Your task to perform on an android device: Open Yahoo.com Image 0: 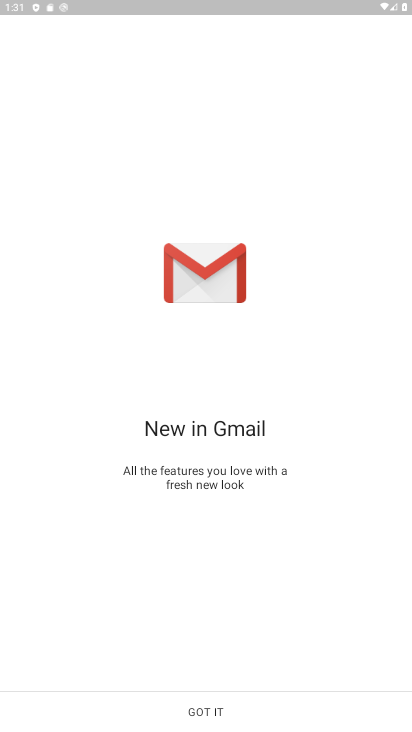
Step 0: press home button
Your task to perform on an android device: Open Yahoo.com Image 1: 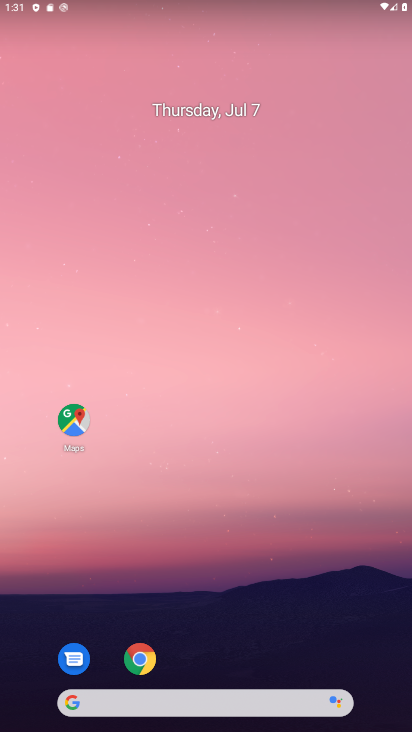
Step 1: click (139, 656)
Your task to perform on an android device: Open Yahoo.com Image 2: 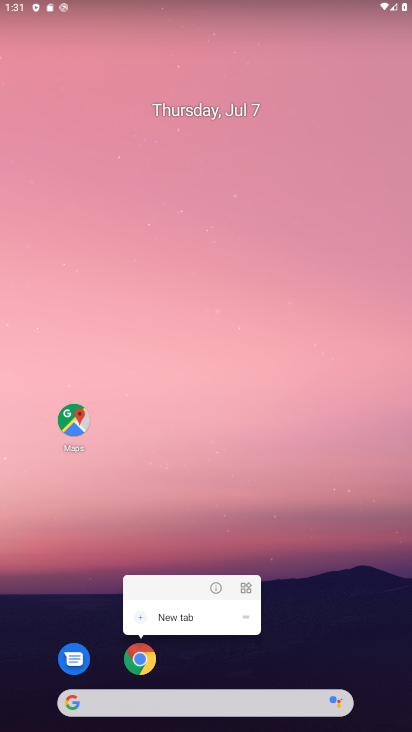
Step 2: click (139, 656)
Your task to perform on an android device: Open Yahoo.com Image 3: 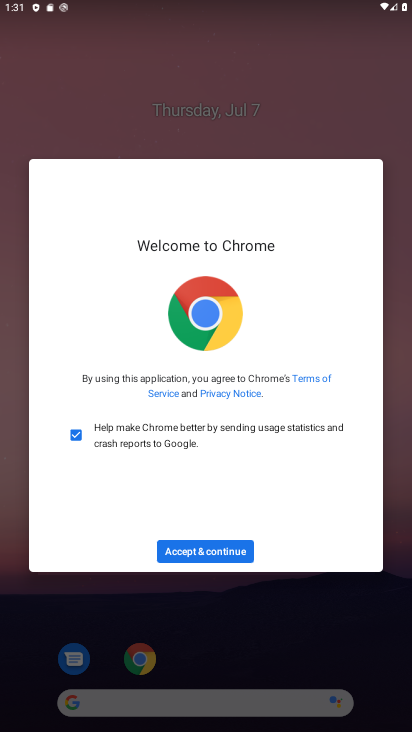
Step 3: click (202, 560)
Your task to perform on an android device: Open Yahoo.com Image 4: 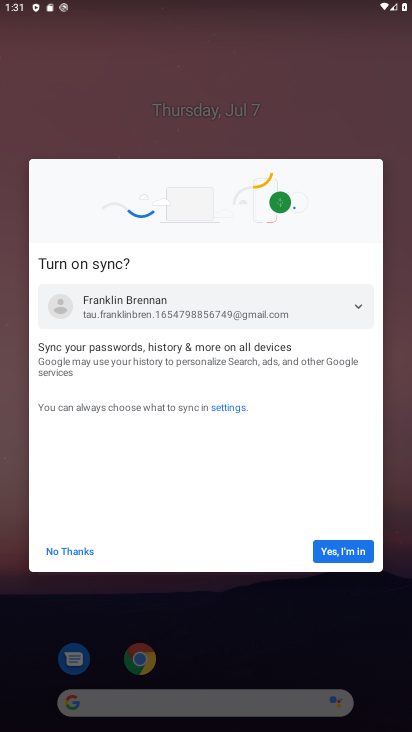
Step 4: click (339, 551)
Your task to perform on an android device: Open Yahoo.com Image 5: 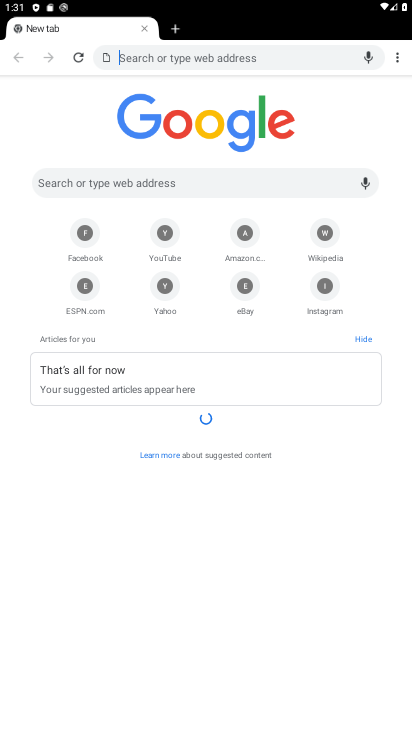
Step 5: click (163, 287)
Your task to perform on an android device: Open Yahoo.com Image 6: 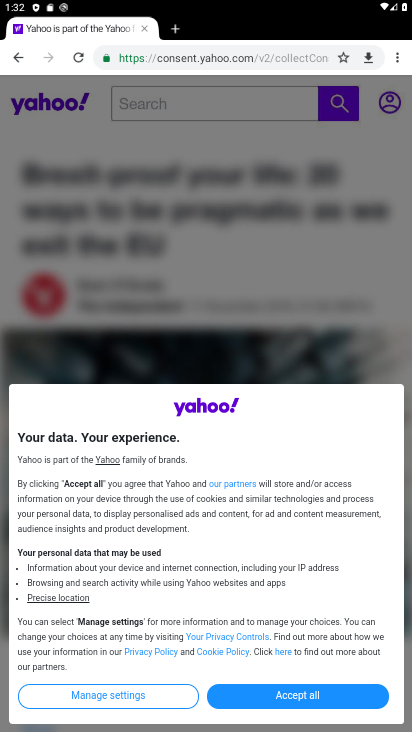
Step 6: click (264, 694)
Your task to perform on an android device: Open Yahoo.com Image 7: 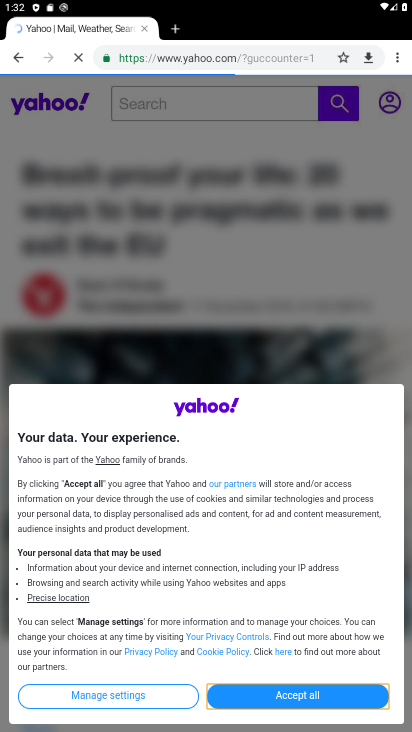
Step 7: click (291, 692)
Your task to perform on an android device: Open Yahoo.com Image 8: 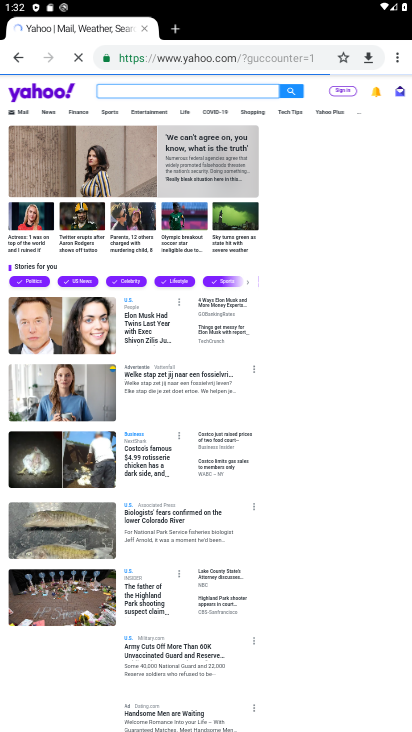
Step 8: task complete